Your task to perform on an android device: turn off notifications in google photos Image 0: 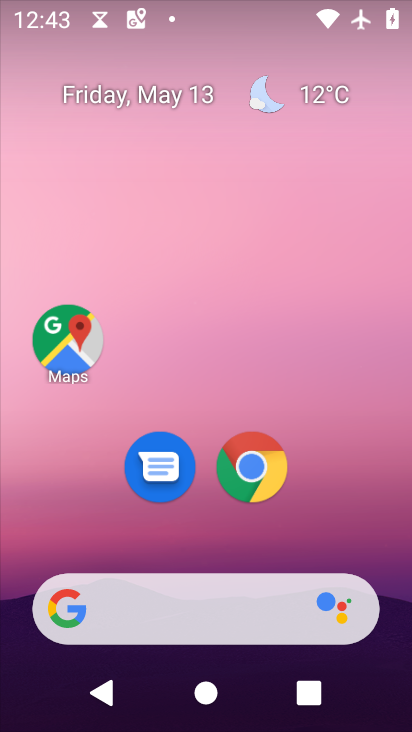
Step 0: drag from (297, 488) to (166, 42)
Your task to perform on an android device: turn off notifications in google photos Image 1: 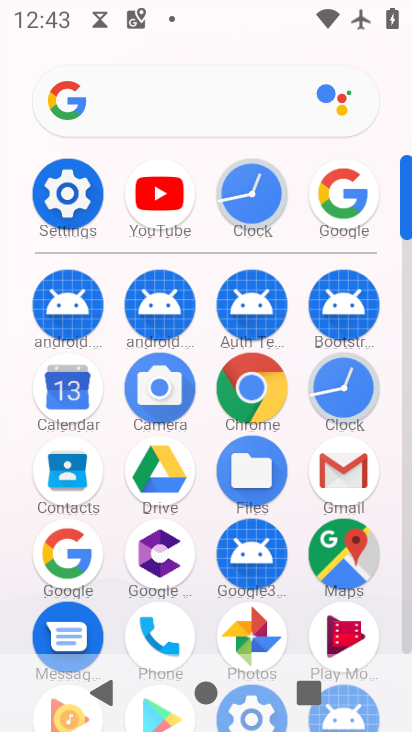
Step 1: click (239, 626)
Your task to perform on an android device: turn off notifications in google photos Image 2: 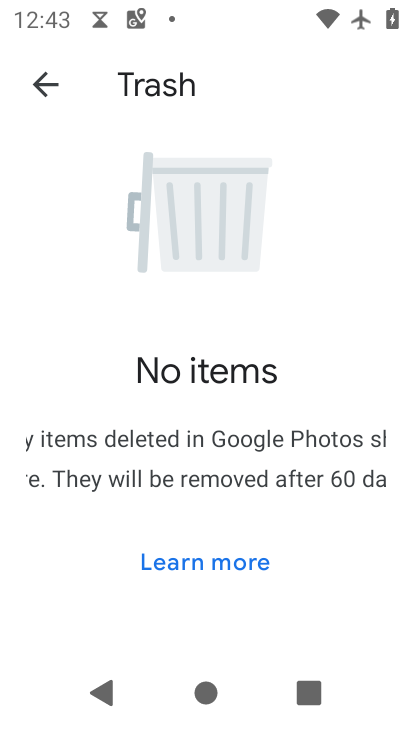
Step 2: click (43, 89)
Your task to perform on an android device: turn off notifications in google photos Image 3: 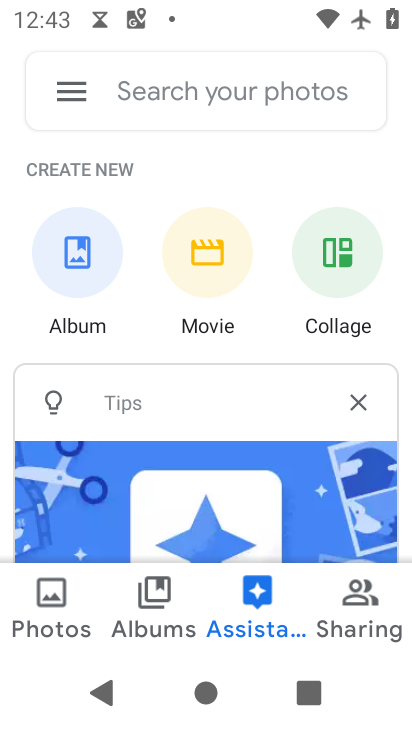
Step 3: click (68, 90)
Your task to perform on an android device: turn off notifications in google photos Image 4: 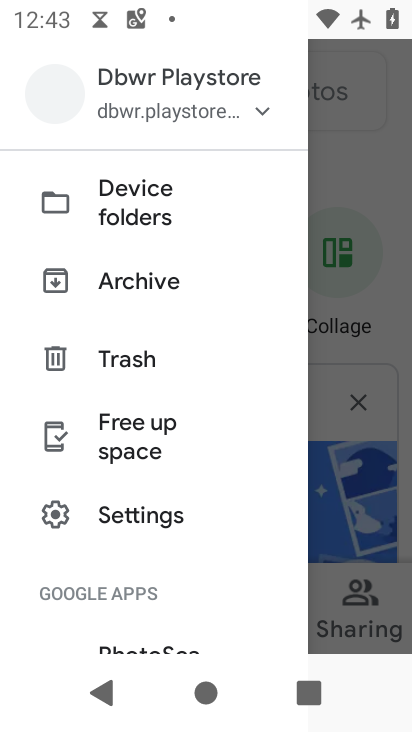
Step 4: click (166, 516)
Your task to perform on an android device: turn off notifications in google photos Image 5: 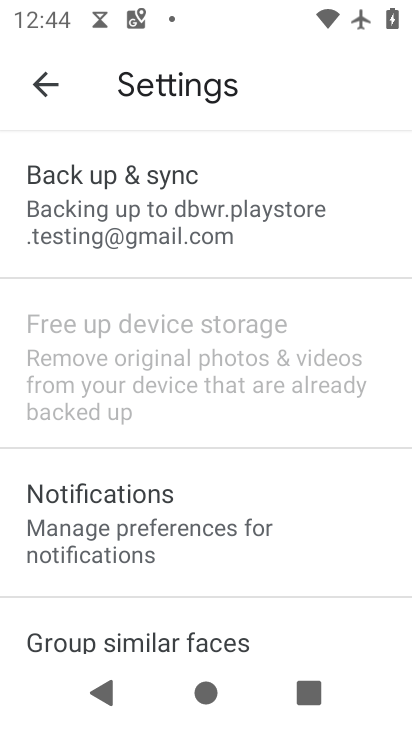
Step 5: click (171, 527)
Your task to perform on an android device: turn off notifications in google photos Image 6: 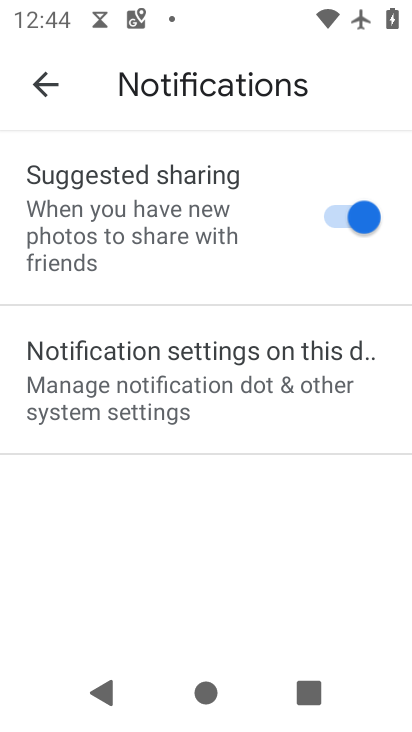
Step 6: click (346, 210)
Your task to perform on an android device: turn off notifications in google photos Image 7: 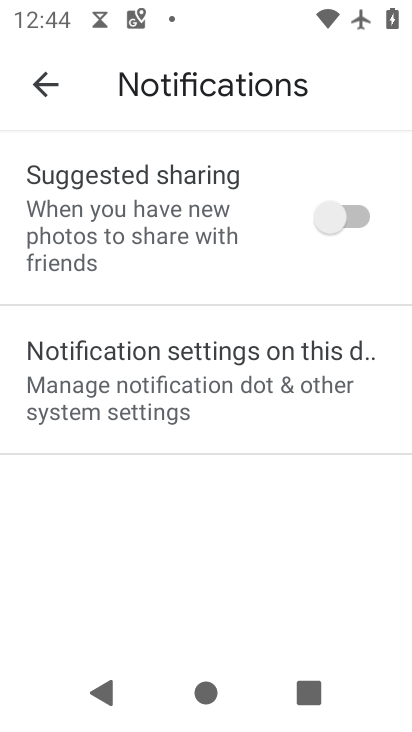
Step 7: task complete